Your task to perform on an android device: turn off smart reply in the gmail app Image 0: 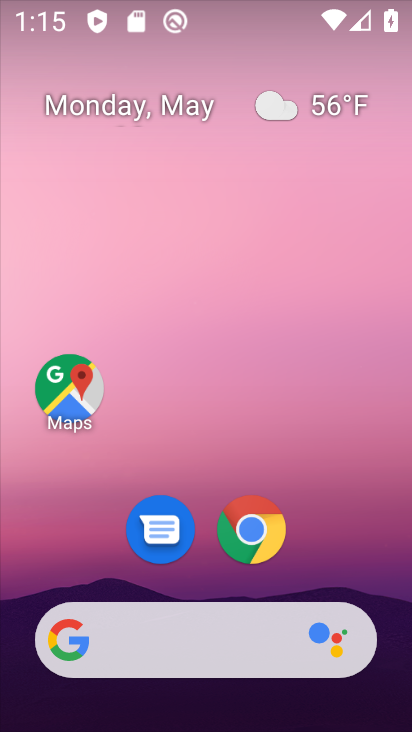
Step 0: drag from (325, 577) to (383, 50)
Your task to perform on an android device: turn off smart reply in the gmail app Image 1: 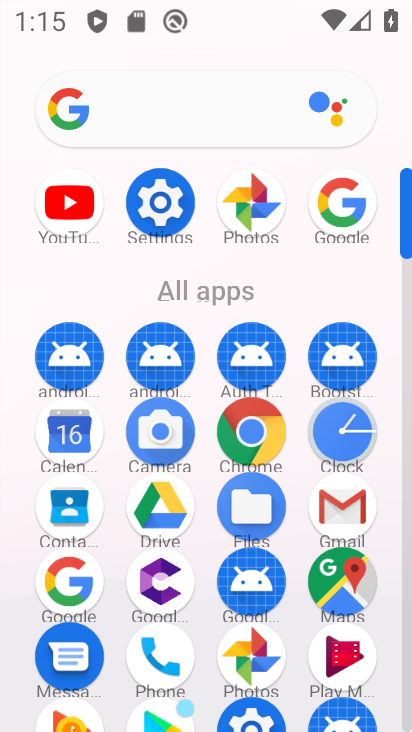
Step 1: click (335, 504)
Your task to perform on an android device: turn off smart reply in the gmail app Image 2: 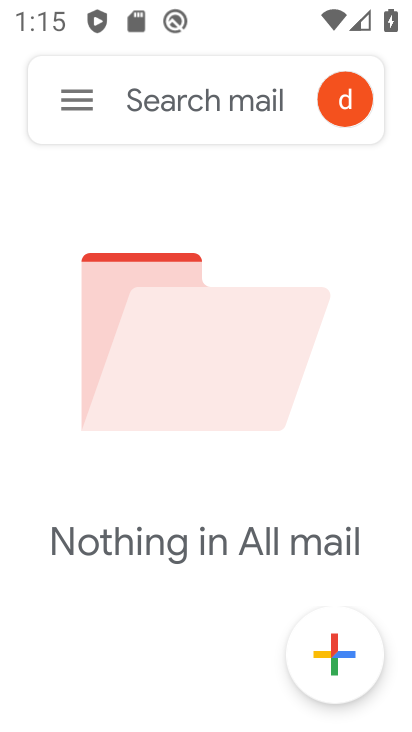
Step 2: click (70, 100)
Your task to perform on an android device: turn off smart reply in the gmail app Image 3: 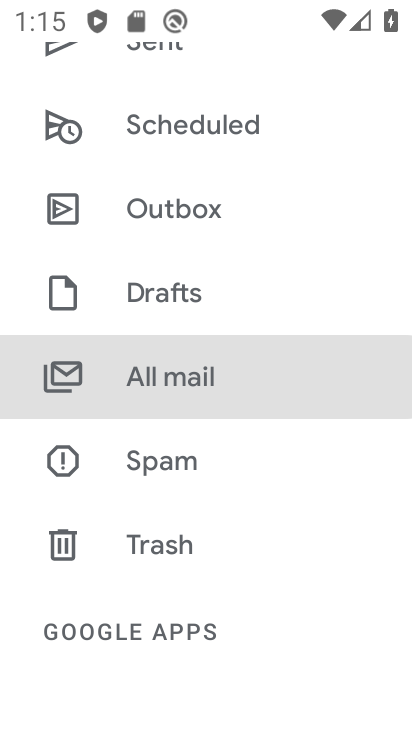
Step 3: drag from (182, 615) to (289, 195)
Your task to perform on an android device: turn off smart reply in the gmail app Image 4: 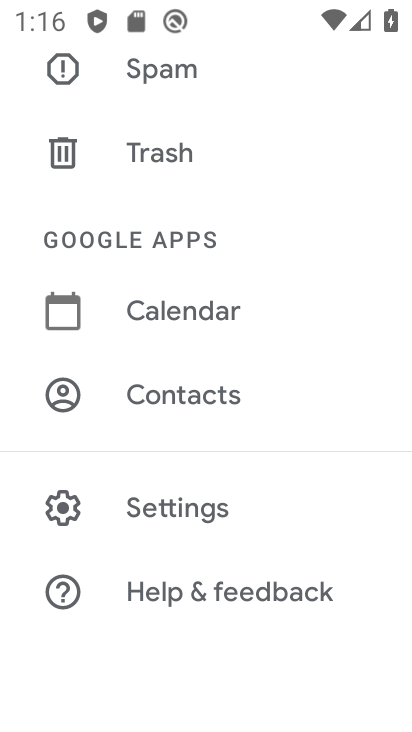
Step 4: click (178, 513)
Your task to perform on an android device: turn off smart reply in the gmail app Image 5: 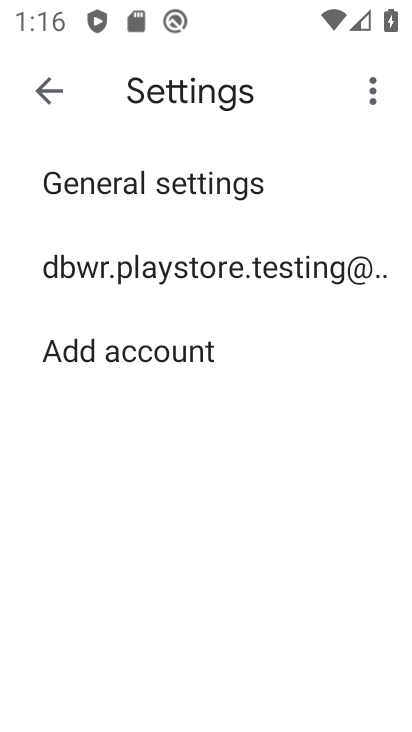
Step 5: click (71, 274)
Your task to perform on an android device: turn off smart reply in the gmail app Image 6: 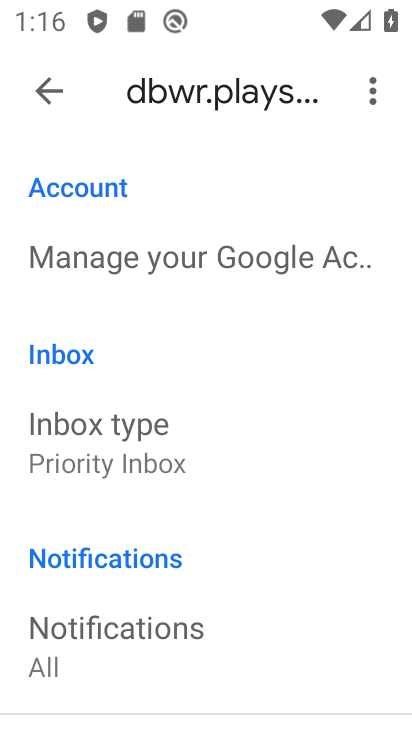
Step 6: drag from (193, 586) to (238, 345)
Your task to perform on an android device: turn off smart reply in the gmail app Image 7: 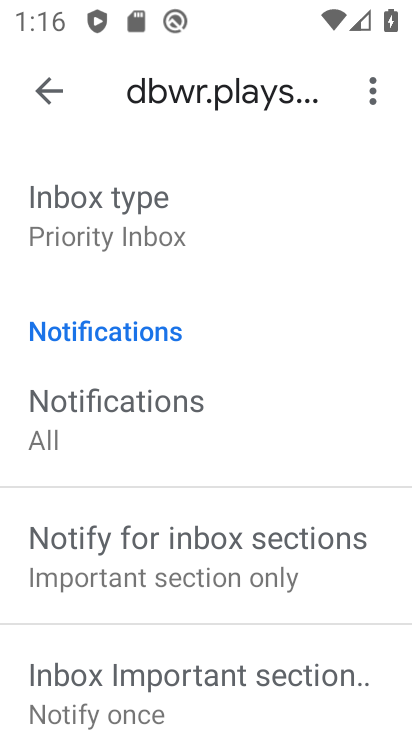
Step 7: drag from (279, 647) to (311, 221)
Your task to perform on an android device: turn off smart reply in the gmail app Image 8: 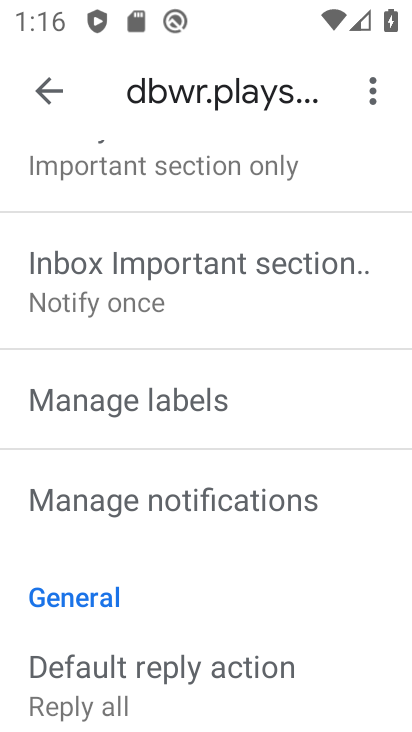
Step 8: drag from (222, 652) to (305, 261)
Your task to perform on an android device: turn off smart reply in the gmail app Image 9: 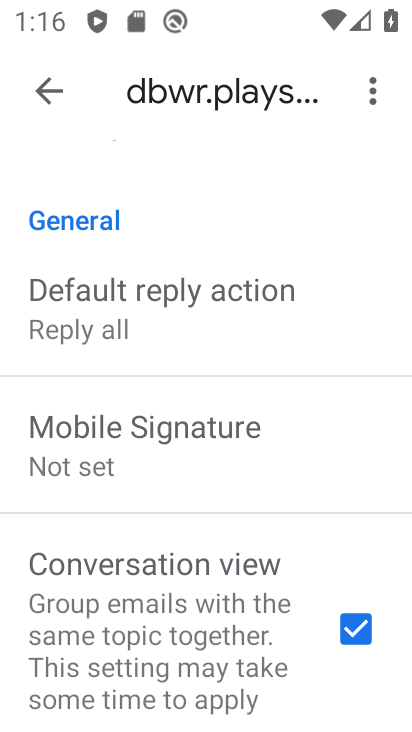
Step 9: drag from (211, 594) to (290, 211)
Your task to perform on an android device: turn off smart reply in the gmail app Image 10: 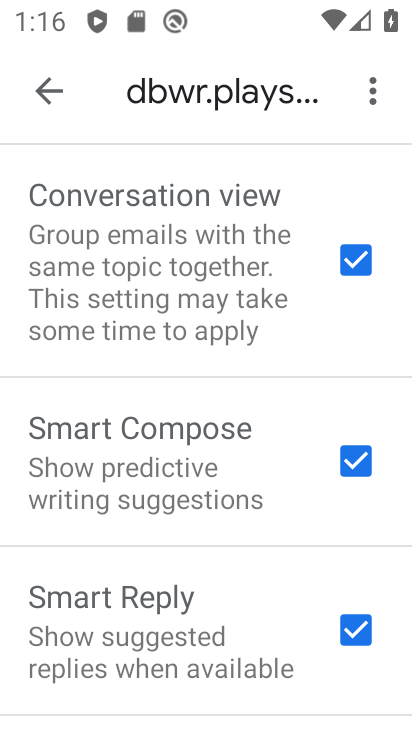
Step 10: drag from (190, 667) to (229, 352)
Your task to perform on an android device: turn off smart reply in the gmail app Image 11: 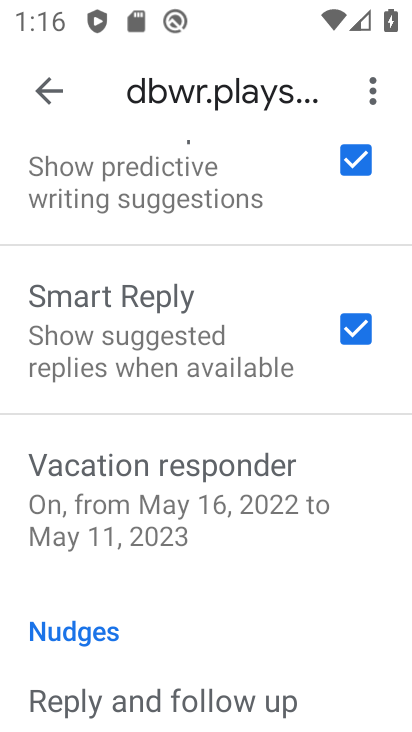
Step 11: click (368, 329)
Your task to perform on an android device: turn off smart reply in the gmail app Image 12: 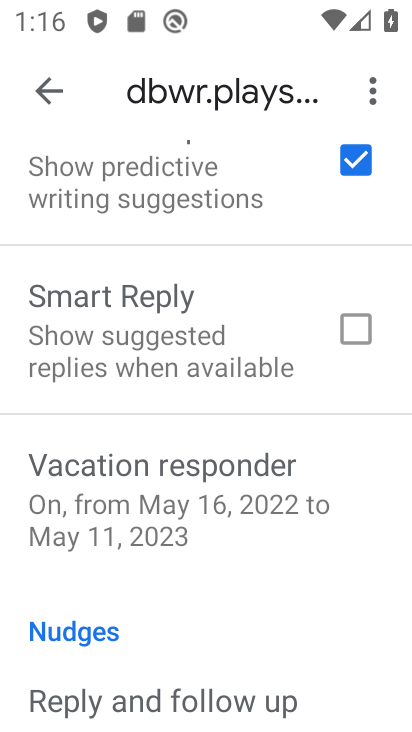
Step 12: task complete